Your task to perform on an android device: Search for Italian restaurants on Maps Image 0: 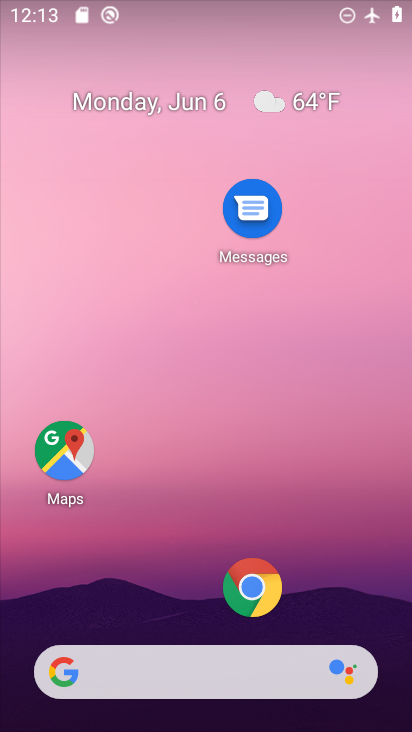
Step 0: drag from (145, 622) to (161, 364)
Your task to perform on an android device: Search for Italian restaurants on Maps Image 1: 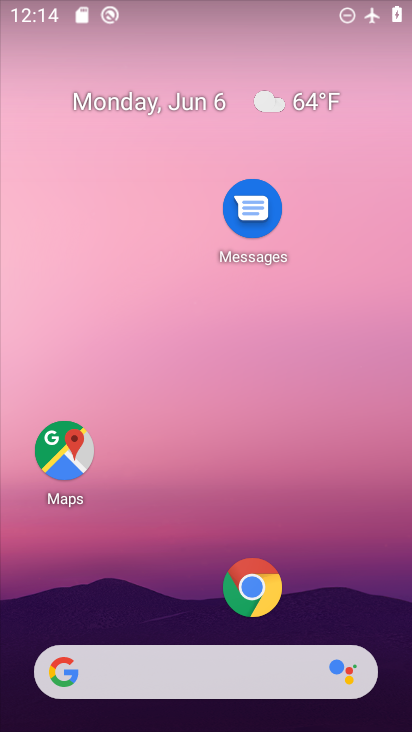
Step 1: click (62, 433)
Your task to perform on an android device: Search for Italian restaurants on Maps Image 2: 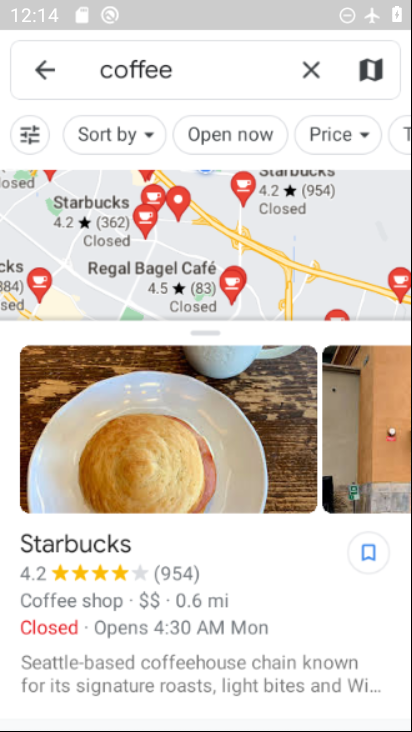
Step 2: click (302, 70)
Your task to perform on an android device: Search for Italian restaurants on Maps Image 3: 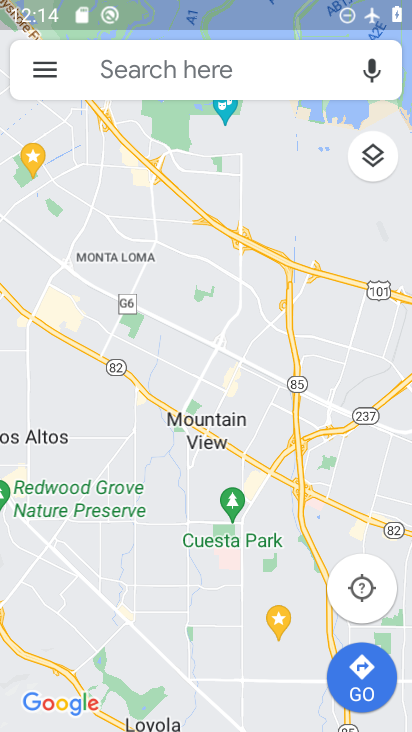
Step 3: click (183, 60)
Your task to perform on an android device: Search for Italian restaurants on Maps Image 4: 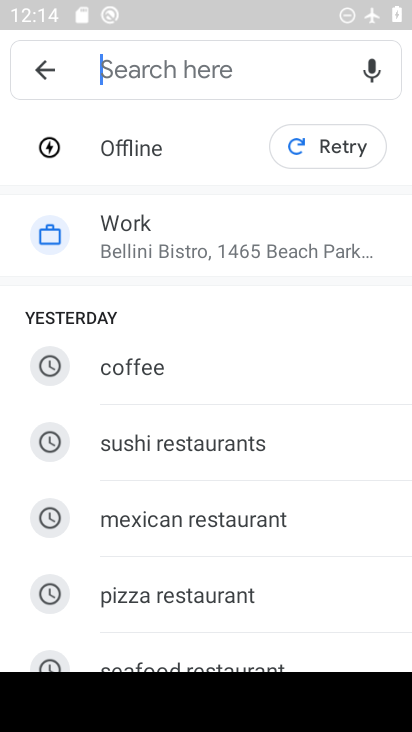
Step 4: type "italian restau"
Your task to perform on an android device: Search for Italian restaurants on Maps Image 5: 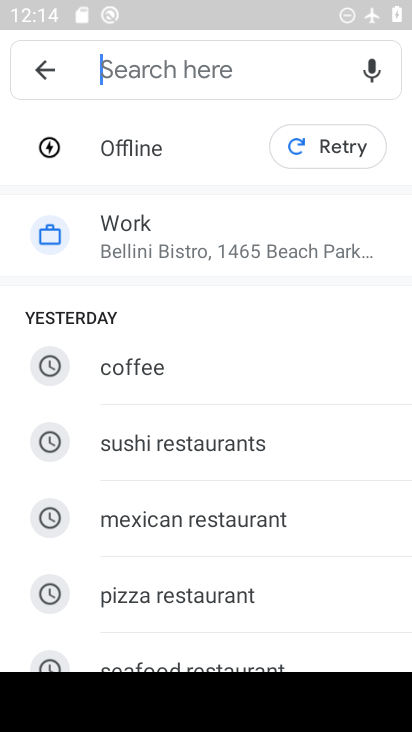
Step 5: click (230, 137)
Your task to perform on an android device: Search for Italian restaurants on Maps Image 6: 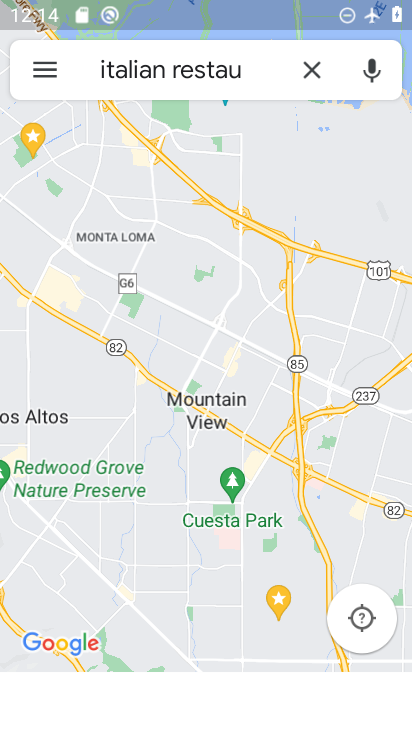
Step 6: drag from (126, 599) to (172, 221)
Your task to perform on an android device: Search for Italian restaurants on Maps Image 7: 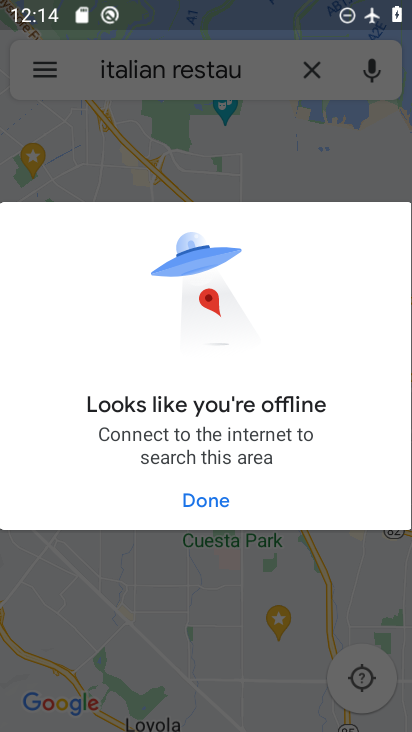
Step 7: drag from (226, 11) to (230, 382)
Your task to perform on an android device: Search for Italian restaurants on Maps Image 8: 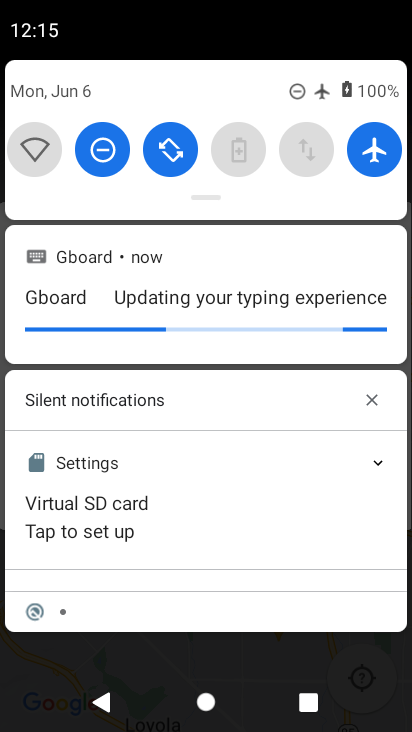
Step 8: click (372, 170)
Your task to perform on an android device: Search for Italian restaurants on Maps Image 9: 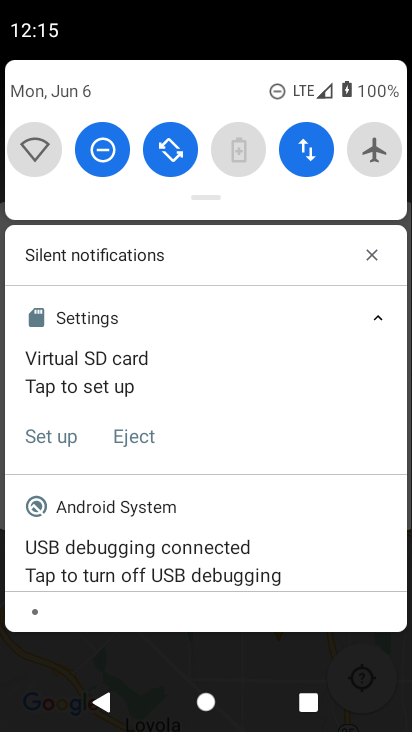
Step 9: task complete